Your task to perform on an android device: Open battery settings Image 0: 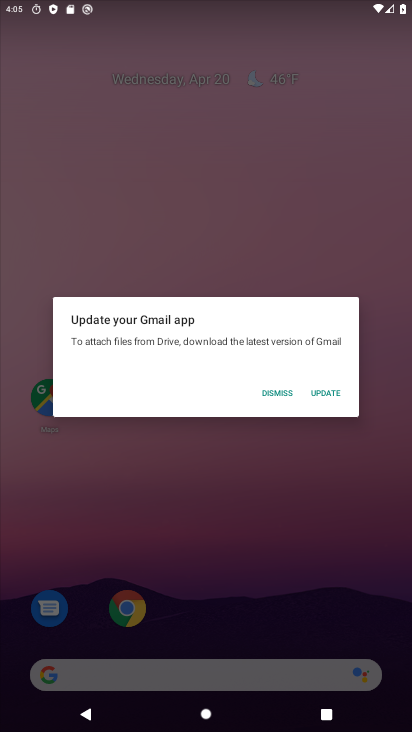
Step 0: click (265, 392)
Your task to perform on an android device: Open battery settings Image 1: 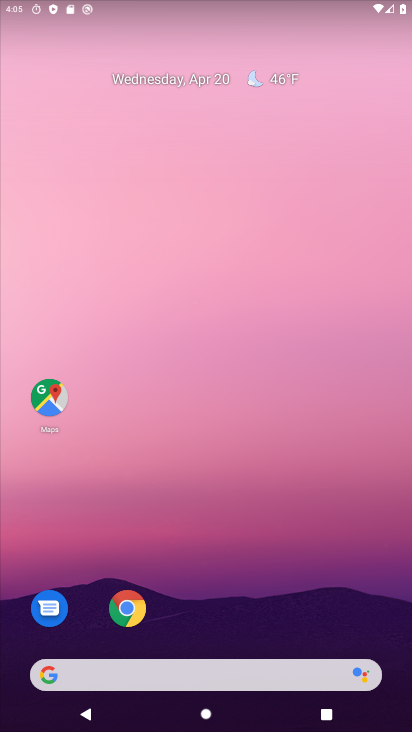
Step 1: drag from (239, 649) to (215, 66)
Your task to perform on an android device: Open battery settings Image 2: 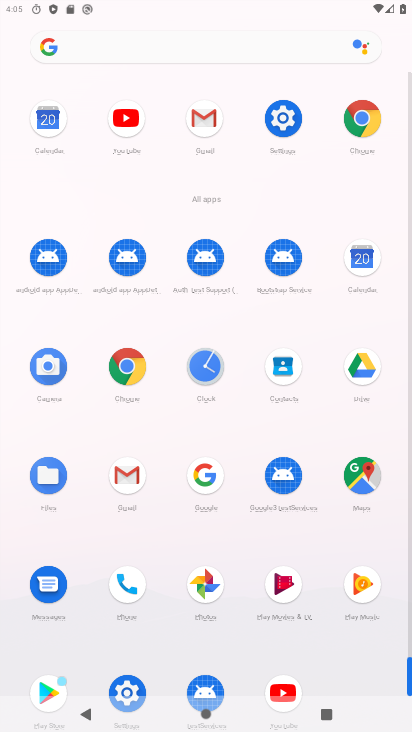
Step 2: click (281, 113)
Your task to perform on an android device: Open battery settings Image 3: 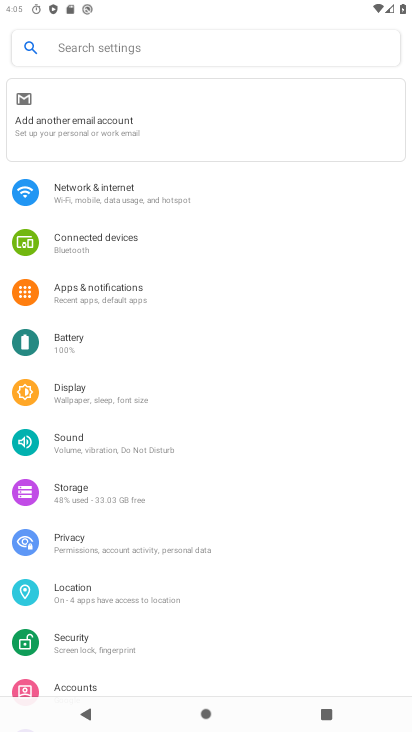
Step 3: click (70, 348)
Your task to perform on an android device: Open battery settings Image 4: 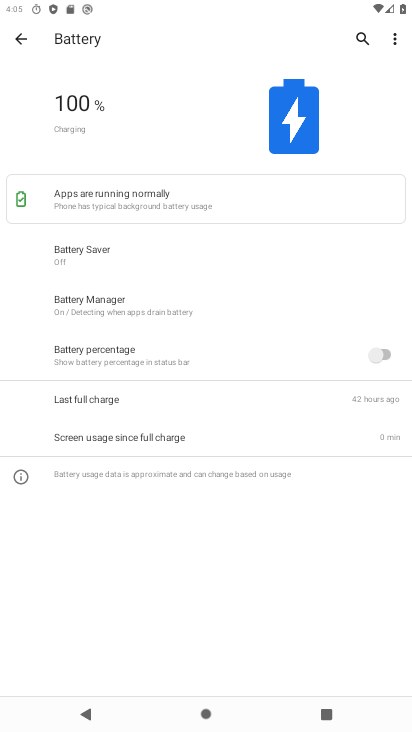
Step 4: click (384, 41)
Your task to perform on an android device: Open battery settings Image 5: 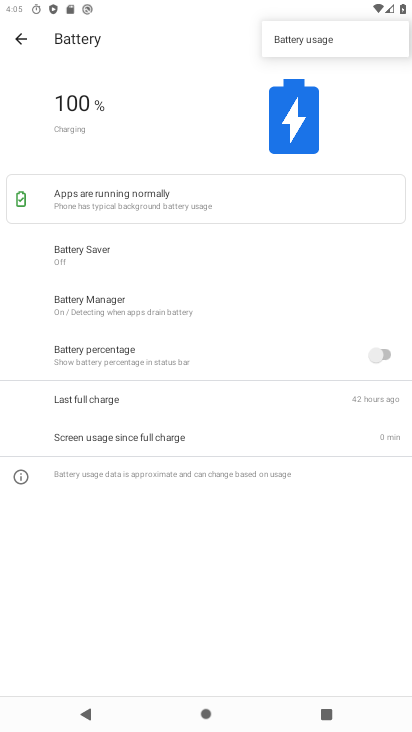
Step 5: click (291, 44)
Your task to perform on an android device: Open battery settings Image 6: 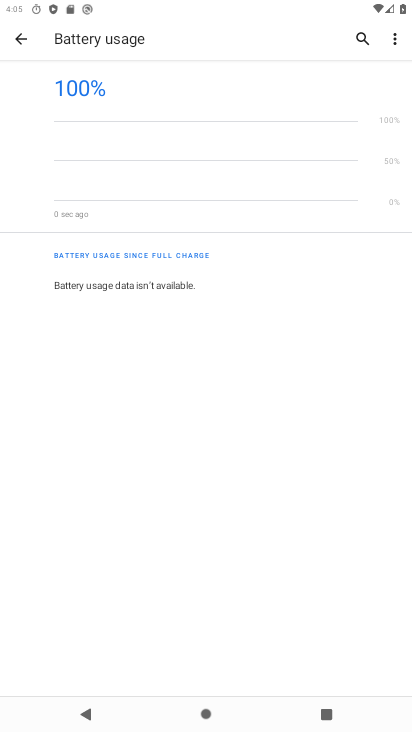
Step 6: task complete